Your task to perform on an android device: toggle airplane mode Image 0: 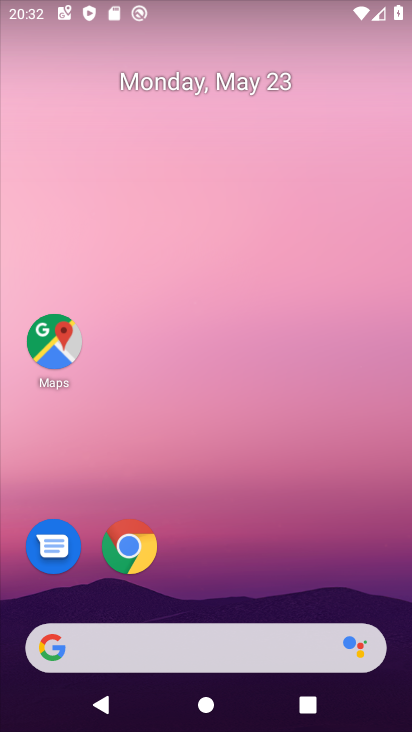
Step 0: drag from (387, 599) to (380, 257)
Your task to perform on an android device: toggle airplane mode Image 1: 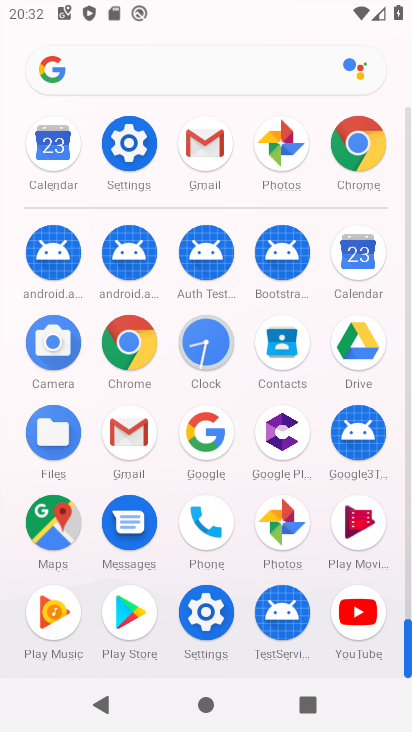
Step 1: click (203, 619)
Your task to perform on an android device: toggle airplane mode Image 2: 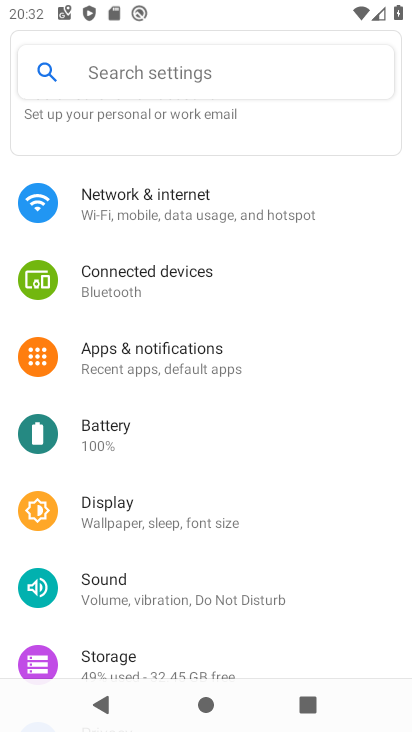
Step 2: drag from (361, 623) to (349, 506)
Your task to perform on an android device: toggle airplane mode Image 3: 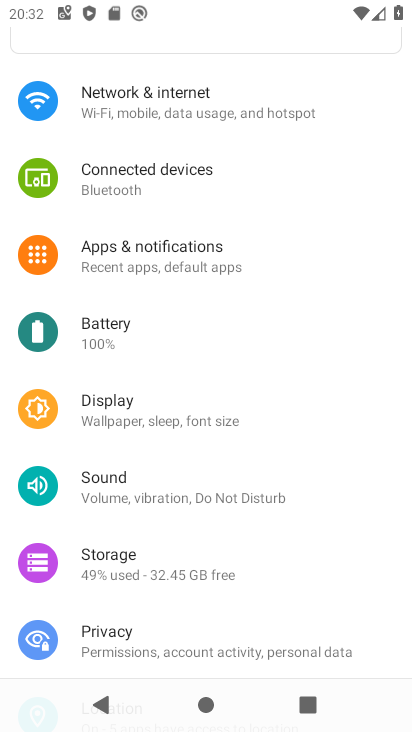
Step 3: drag from (333, 615) to (322, 477)
Your task to perform on an android device: toggle airplane mode Image 4: 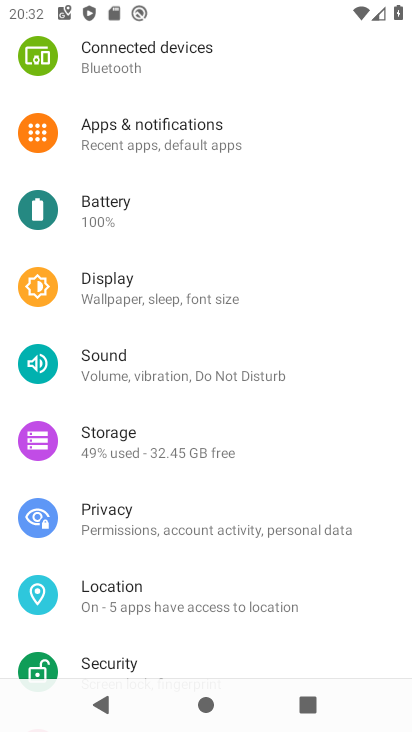
Step 4: drag from (357, 622) to (341, 484)
Your task to perform on an android device: toggle airplane mode Image 5: 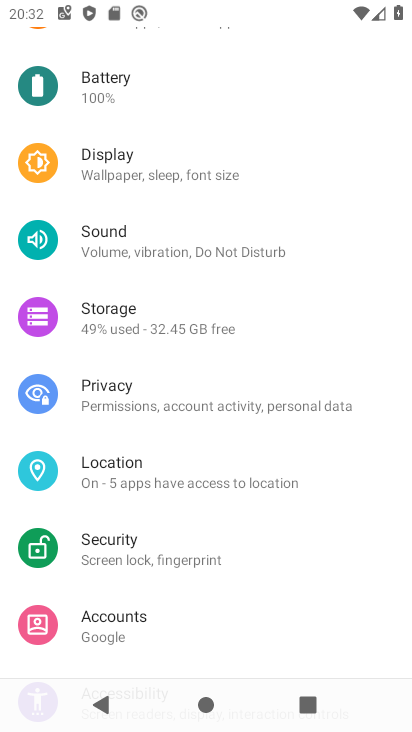
Step 5: drag from (346, 597) to (349, 435)
Your task to perform on an android device: toggle airplane mode Image 6: 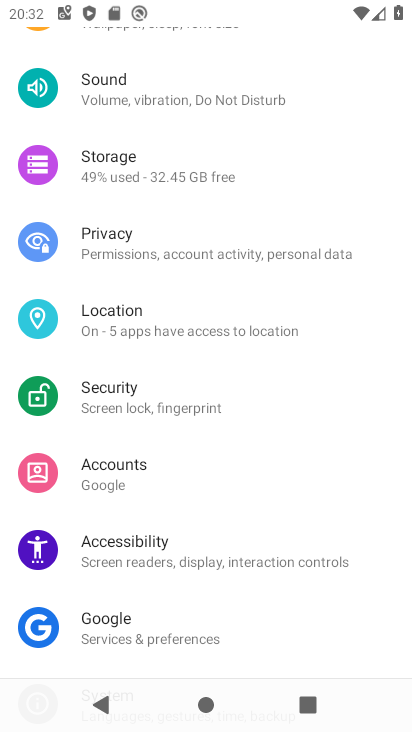
Step 6: drag from (326, 622) to (329, 507)
Your task to perform on an android device: toggle airplane mode Image 7: 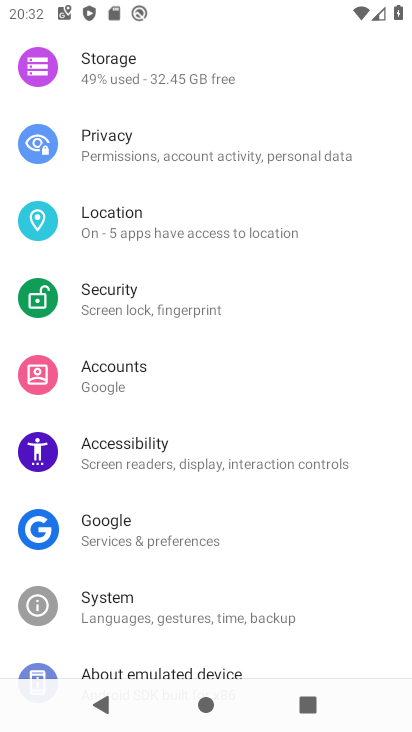
Step 7: drag from (365, 362) to (371, 481)
Your task to perform on an android device: toggle airplane mode Image 8: 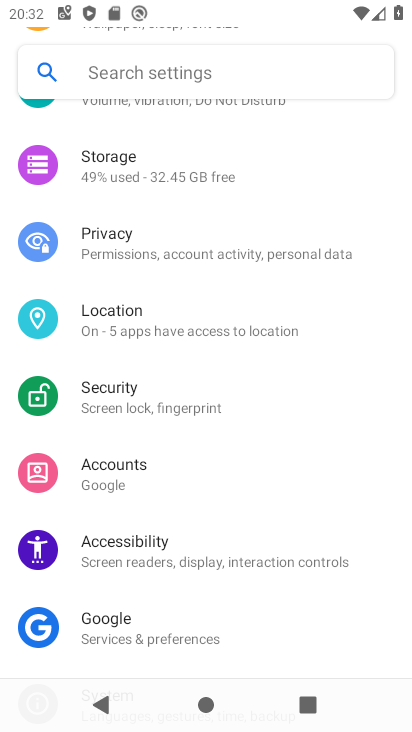
Step 8: drag from (373, 322) to (368, 447)
Your task to perform on an android device: toggle airplane mode Image 9: 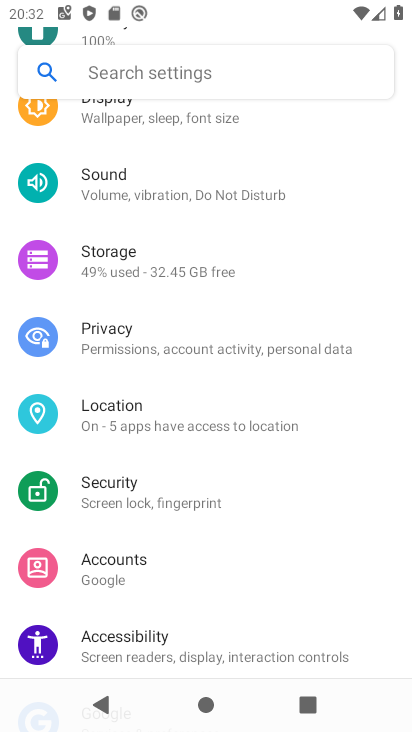
Step 9: drag from (374, 287) to (373, 429)
Your task to perform on an android device: toggle airplane mode Image 10: 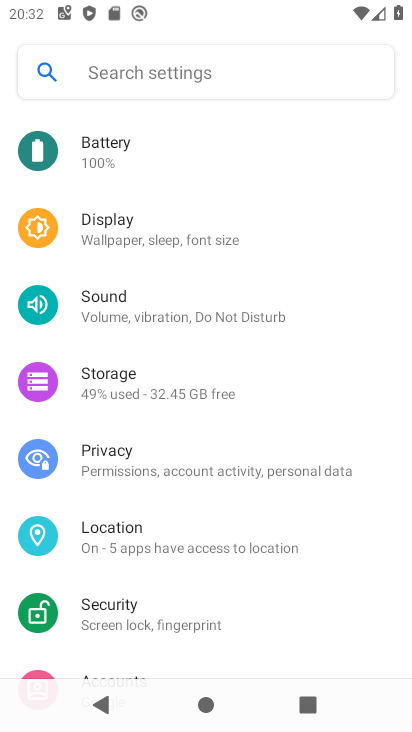
Step 10: drag from (364, 273) to (359, 450)
Your task to perform on an android device: toggle airplane mode Image 11: 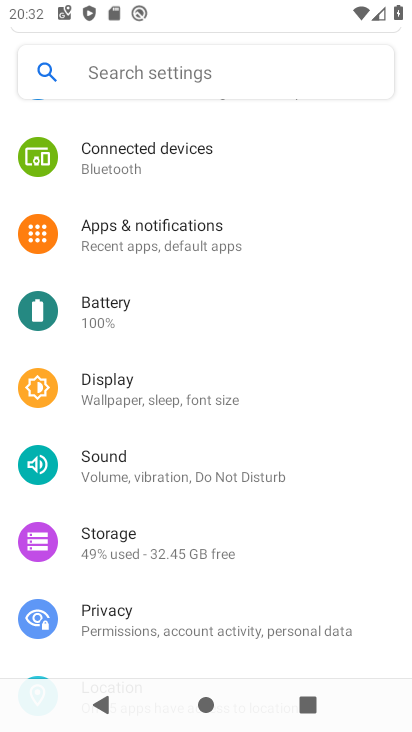
Step 11: drag from (346, 249) to (348, 400)
Your task to perform on an android device: toggle airplane mode Image 12: 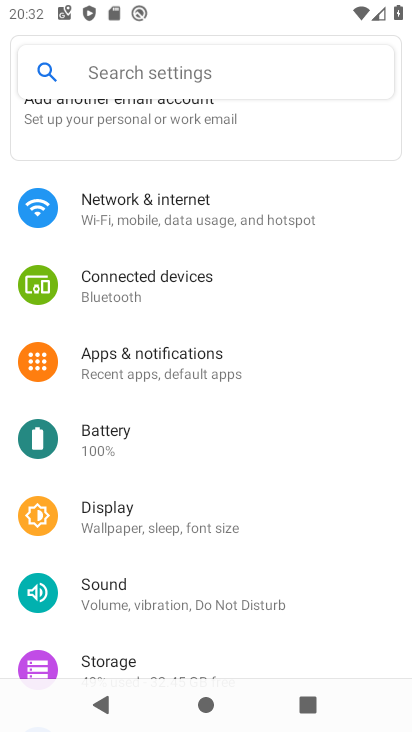
Step 12: drag from (345, 228) to (353, 431)
Your task to perform on an android device: toggle airplane mode Image 13: 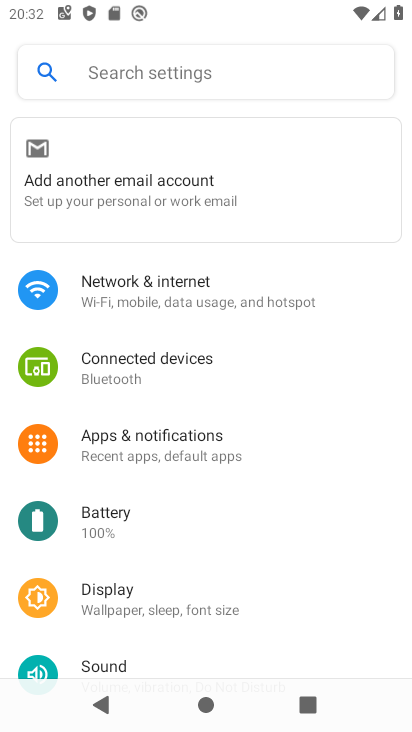
Step 13: click (238, 291)
Your task to perform on an android device: toggle airplane mode Image 14: 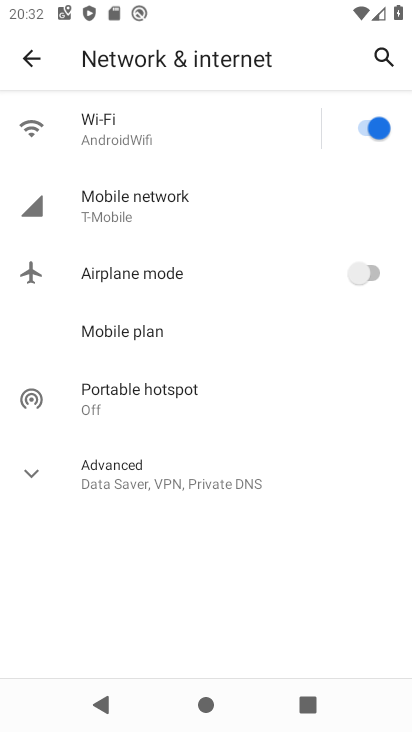
Step 14: click (369, 274)
Your task to perform on an android device: toggle airplane mode Image 15: 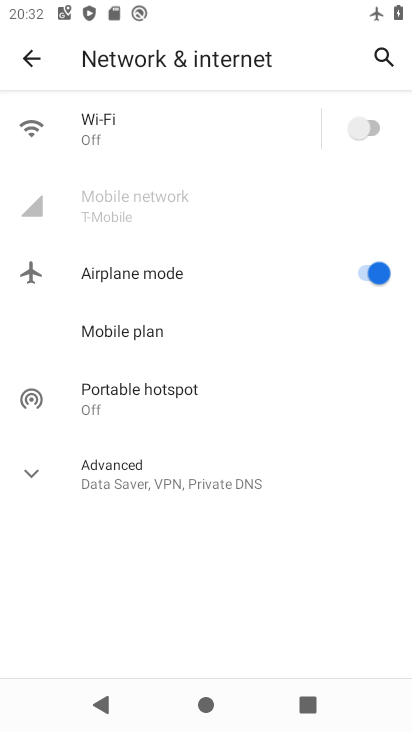
Step 15: task complete